Your task to perform on an android device: Open Yahoo.com Image 0: 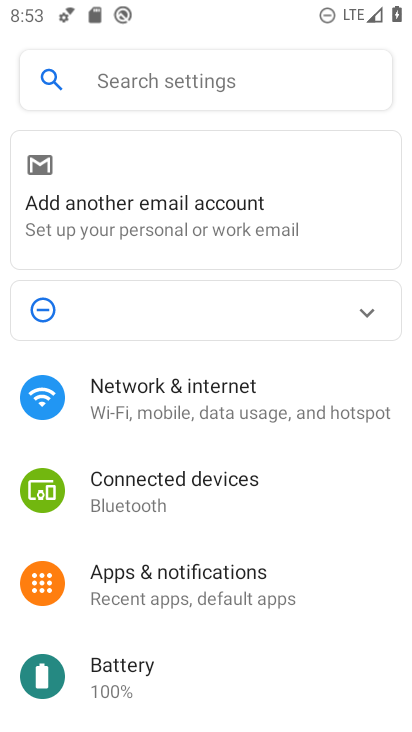
Step 0: press home button
Your task to perform on an android device: Open Yahoo.com Image 1: 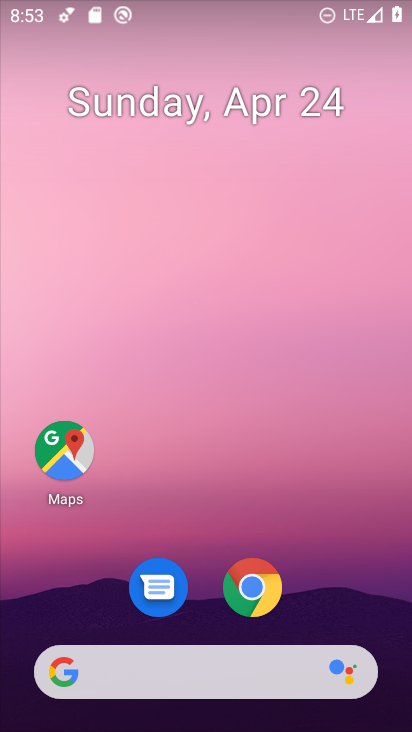
Step 1: drag from (357, 519) to (320, 110)
Your task to perform on an android device: Open Yahoo.com Image 2: 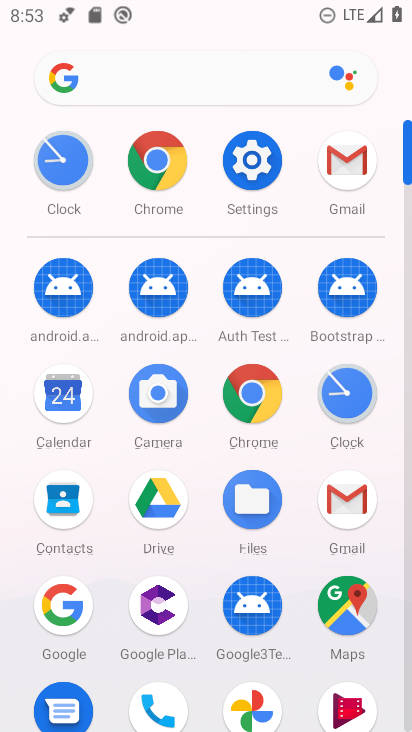
Step 2: click (256, 384)
Your task to perform on an android device: Open Yahoo.com Image 3: 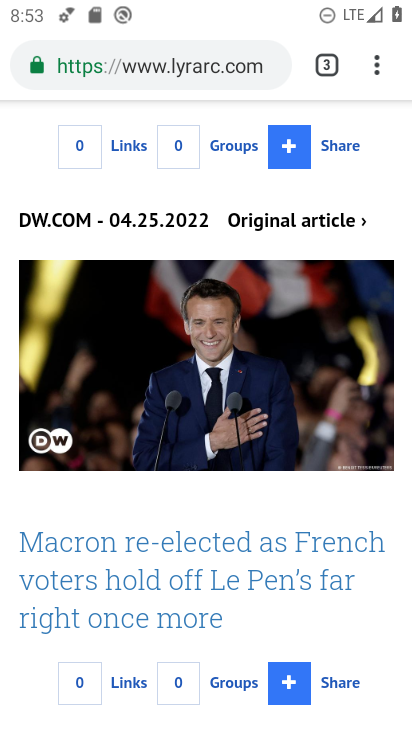
Step 3: click (157, 48)
Your task to perform on an android device: Open Yahoo.com Image 4: 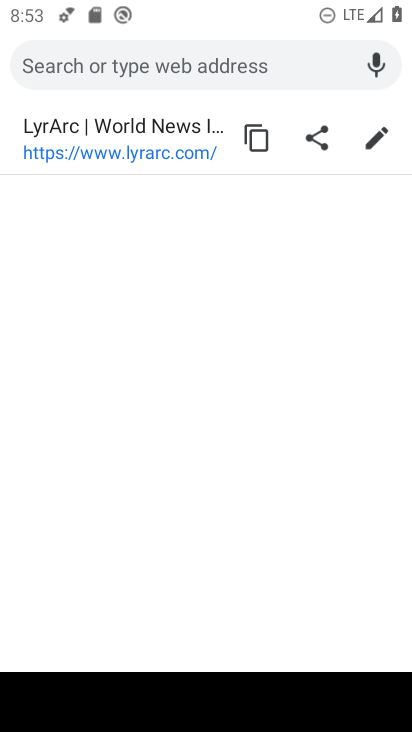
Step 4: type "yahoo.com"
Your task to perform on an android device: Open Yahoo.com Image 5: 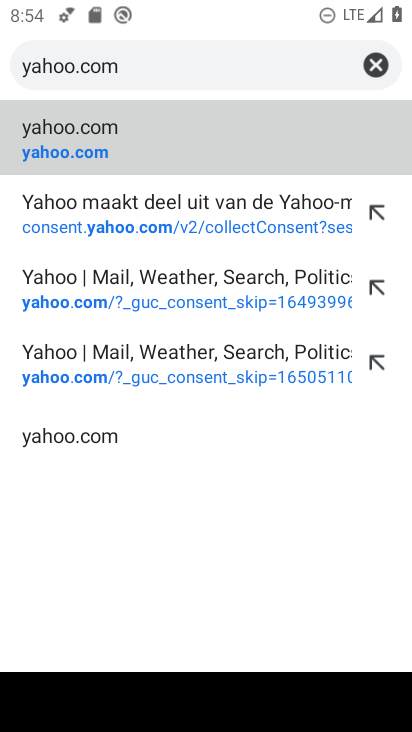
Step 5: click (88, 136)
Your task to perform on an android device: Open Yahoo.com Image 6: 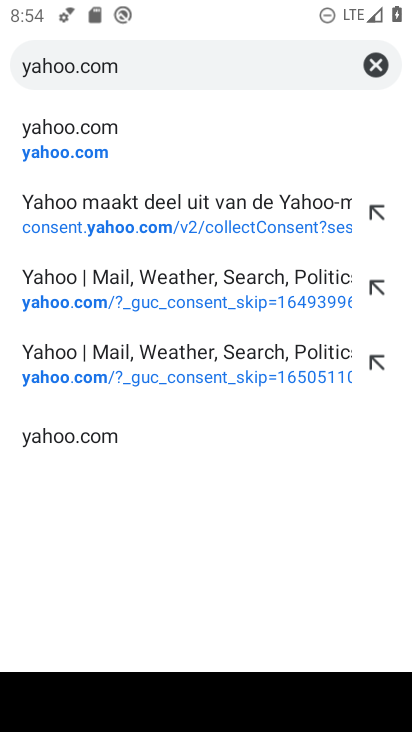
Step 6: click (85, 137)
Your task to perform on an android device: Open Yahoo.com Image 7: 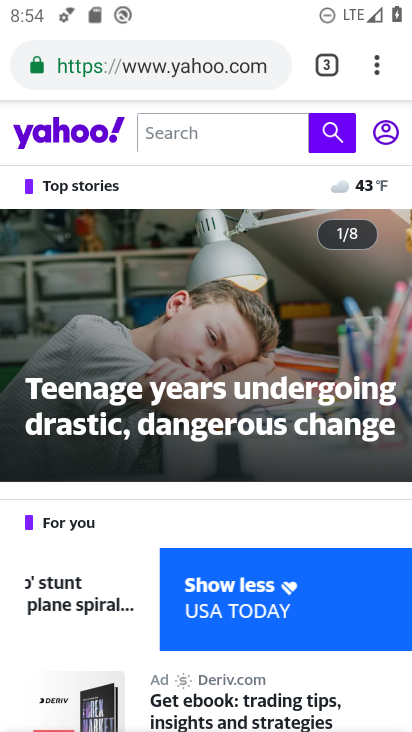
Step 7: task complete